Your task to perform on an android device: Open calendar and show me the fourth week of next month Image 0: 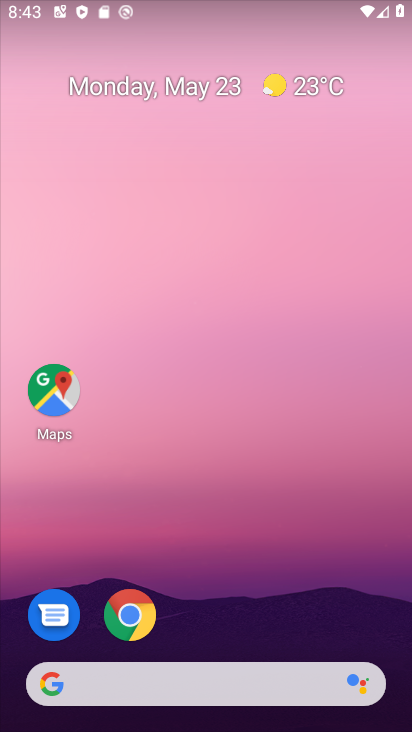
Step 0: drag from (266, 597) to (214, 83)
Your task to perform on an android device: Open calendar and show me the fourth week of next month Image 1: 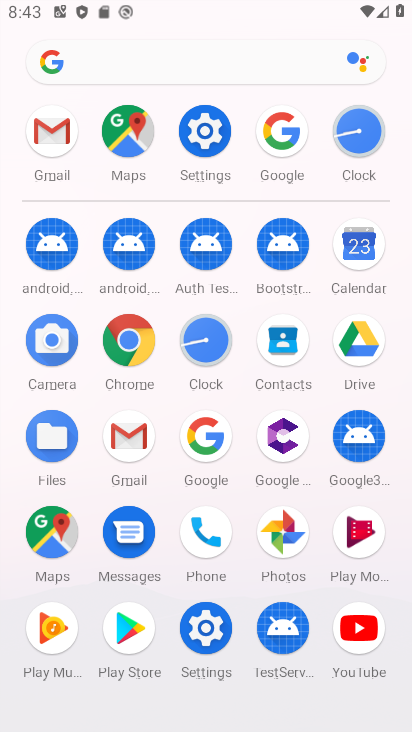
Step 1: click (360, 246)
Your task to perform on an android device: Open calendar and show me the fourth week of next month Image 2: 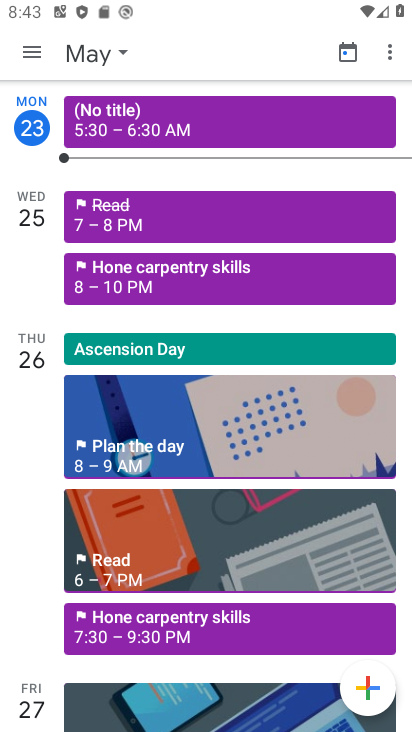
Step 2: click (348, 51)
Your task to perform on an android device: Open calendar and show me the fourth week of next month Image 3: 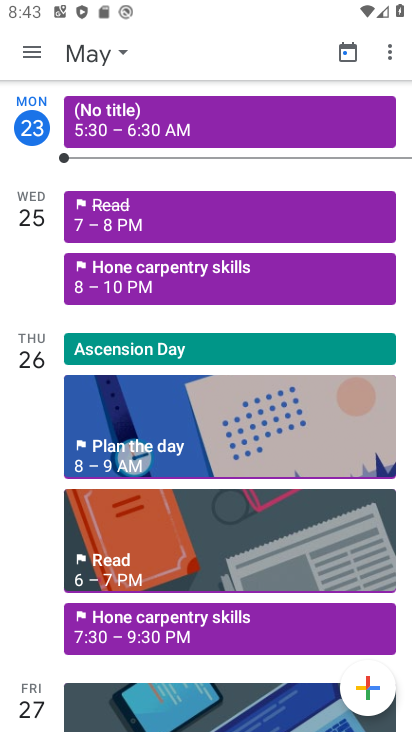
Step 3: click (123, 53)
Your task to perform on an android device: Open calendar and show me the fourth week of next month Image 4: 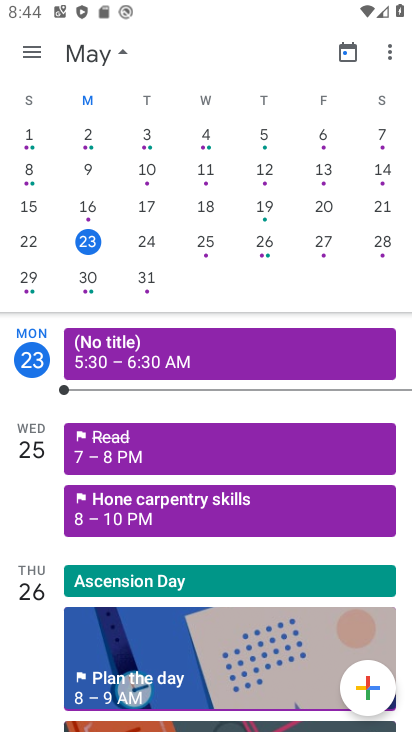
Step 4: drag from (353, 211) to (40, 261)
Your task to perform on an android device: Open calendar and show me the fourth week of next month Image 5: 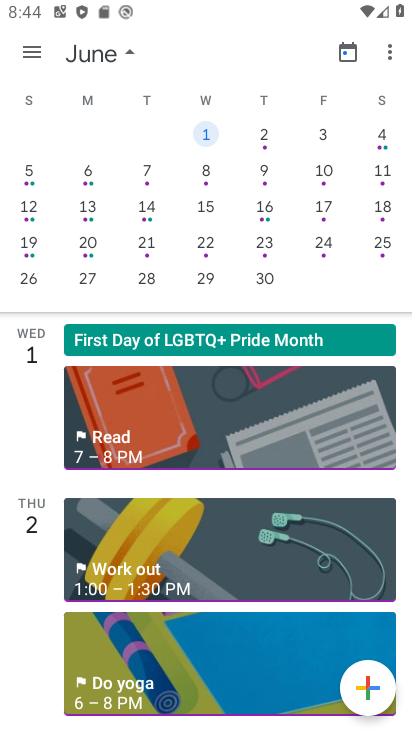
Step 5: click (89, 277)
Your task to perform on an android device: Open calendar and show me the fourth week of next month Image 6: 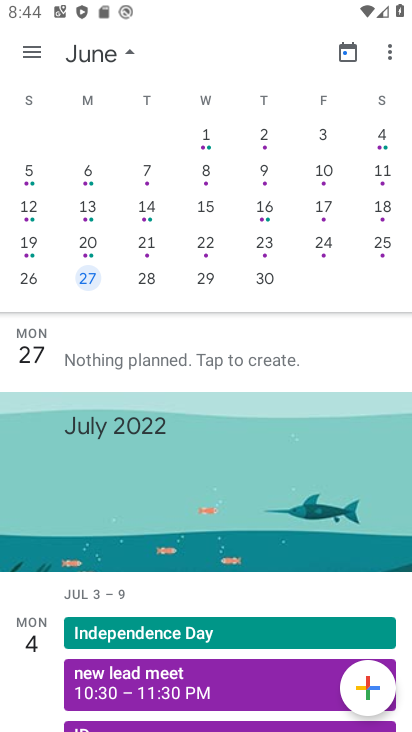
Step 6: click (33, 49)
Your task to perform on an android device: Open calendar and show me the fourth week of next month Image 7: 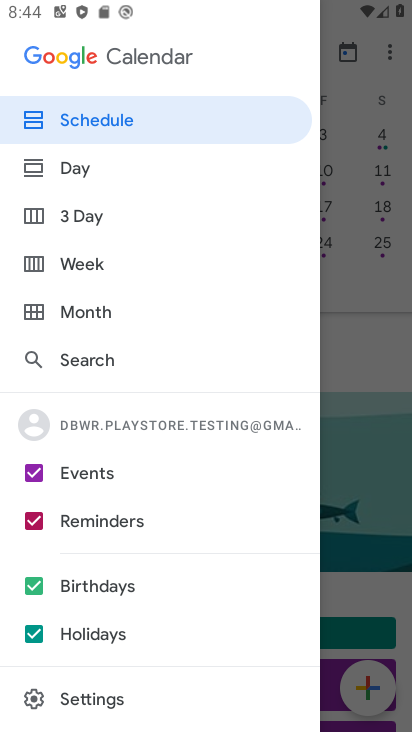
Step 7: click (82, 265)
Your task to perform on an android device: Open calendar and show me the fourth week of next month Image 8: 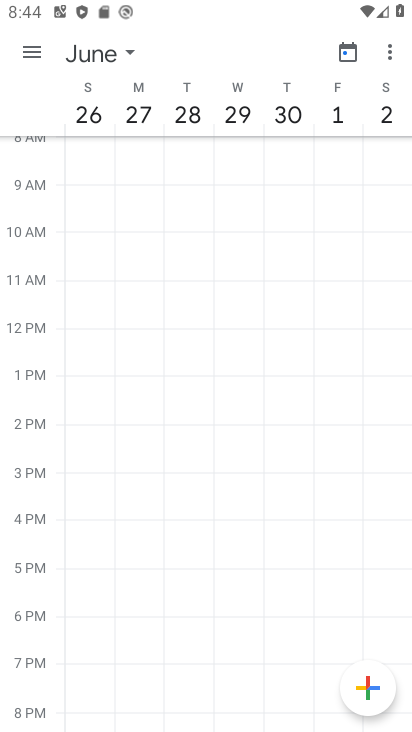
Step 8: task complete